Your task to perform on an android device: Open calendar and show me the first week of next month Image 0: 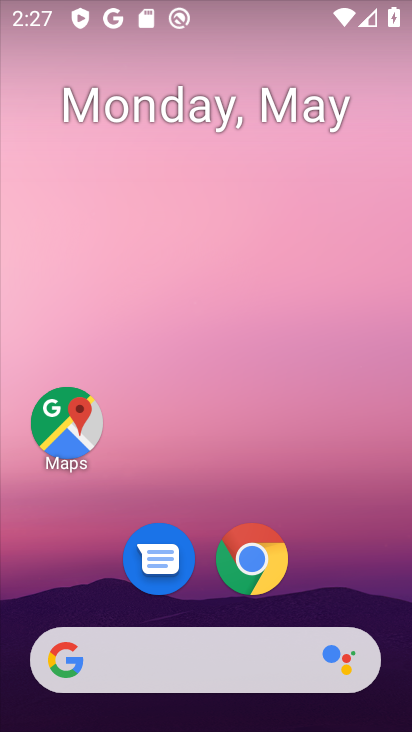
Step 0: drag from (303, 576) to (375, 0)
Your task to perform on an android device: Open calendar and show me the first week of next month Image 1: 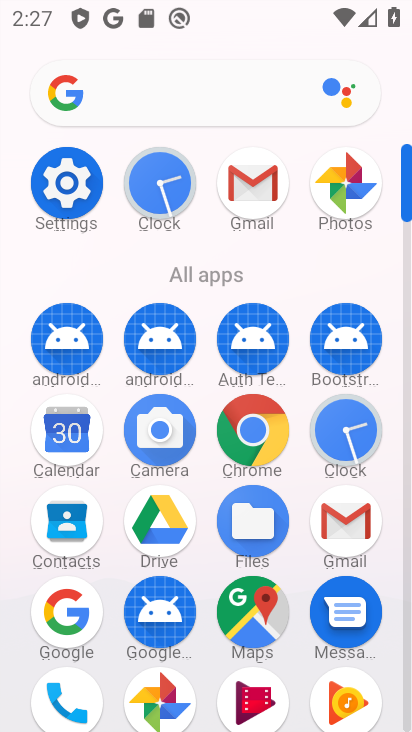
Step 1: click (62, 416)
Your task to perform on an android device: Open calendar and show me the first week of next month Image 2: 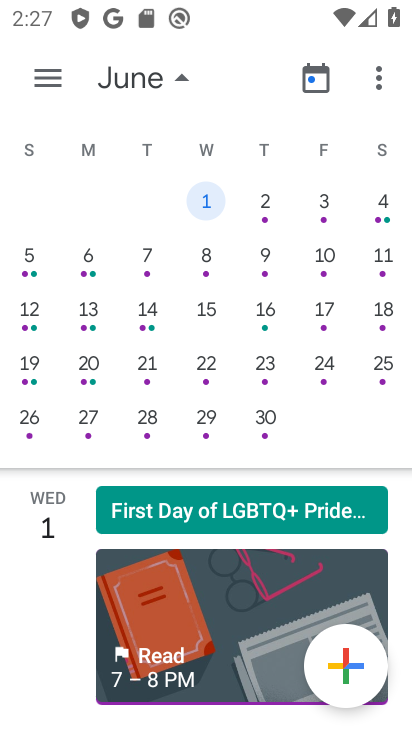
Step 2: task complete